Your task to perform on an android device: Open Chrome and go to settings Image 0: 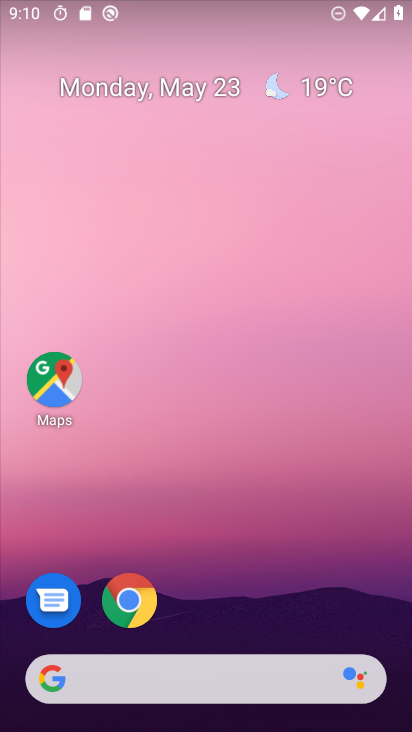
Step 0: press home button
Your task to perform on an android device: Open Chrome and go to settings Image 1: 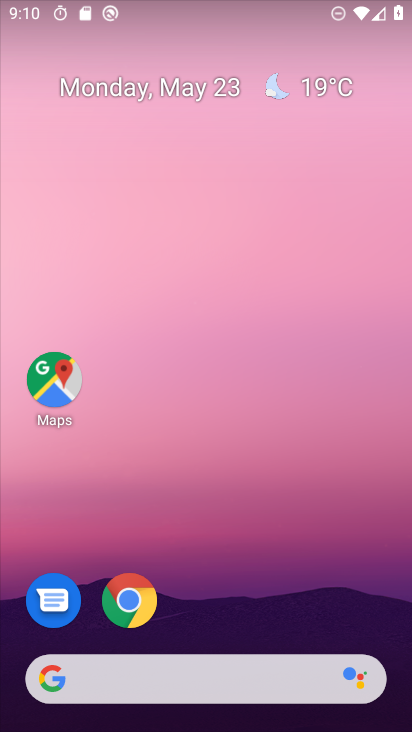
Step 1: click (115, 607)
Your task to perform on an android device: Open Chrome and go to settings Image 2: 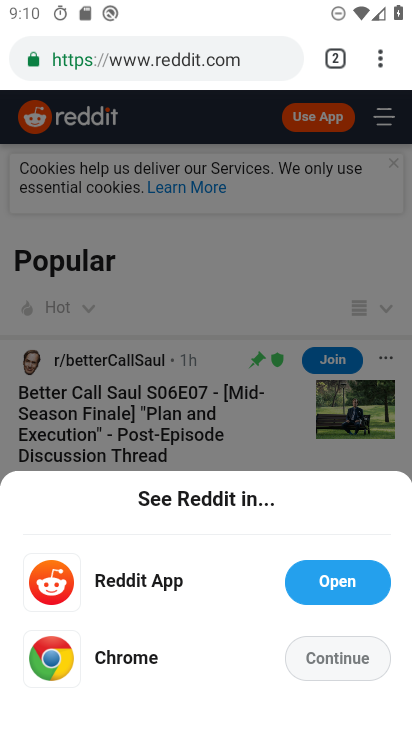
Step 2: click (375, 61)
Your task to perform on an android device: Open Chrome and go to settings Image 3: 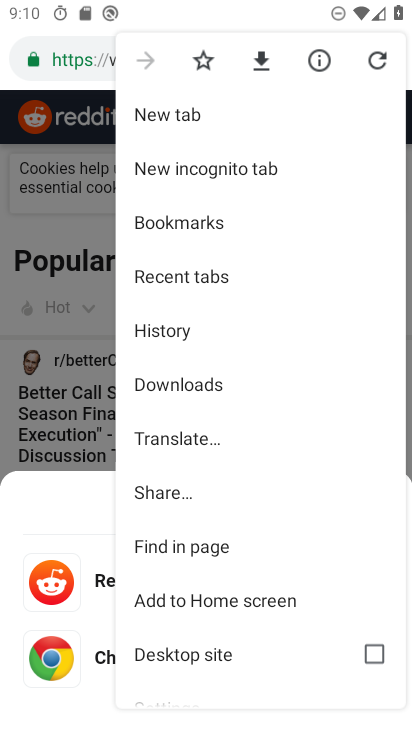
Step 3: drag from (146, 672) to (277, 231)
Your task to perform on an android device: Open Chrome and go to settings Image 4: 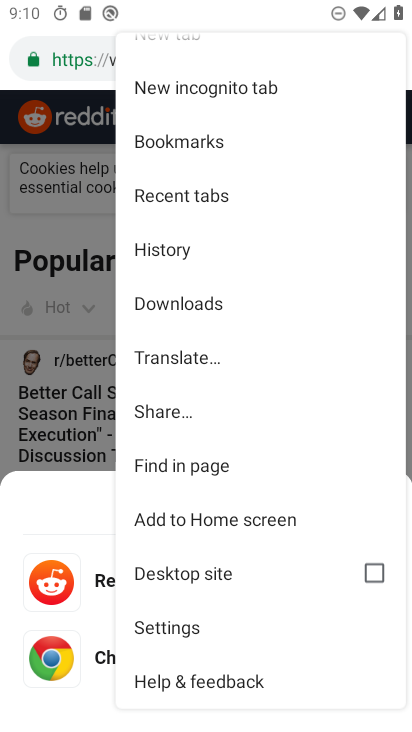
Step 4: click (180, 661)
Your task to perform on an android device: Open Chrome and go to settings Image 5: 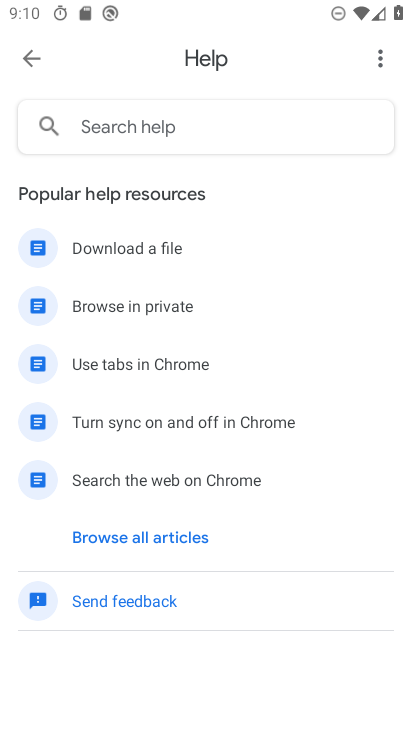
Step 5: press back button
Your task to perform on an android device: Open Chrome and go to settings Image 6: 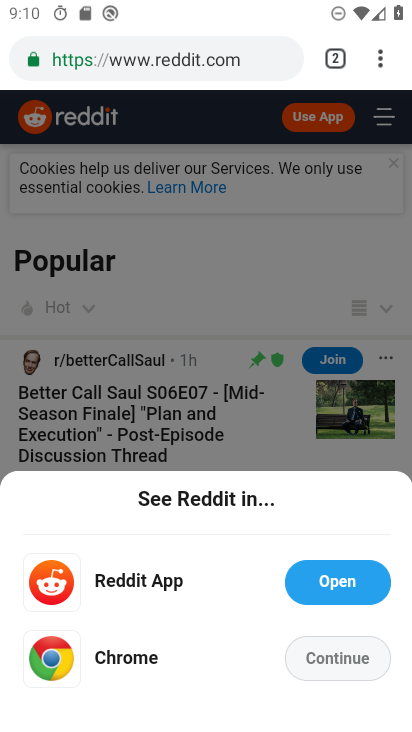
Step 6: click (378, 48)
Your task to perform on an android device: Open Chrome and go to settings Image 7: 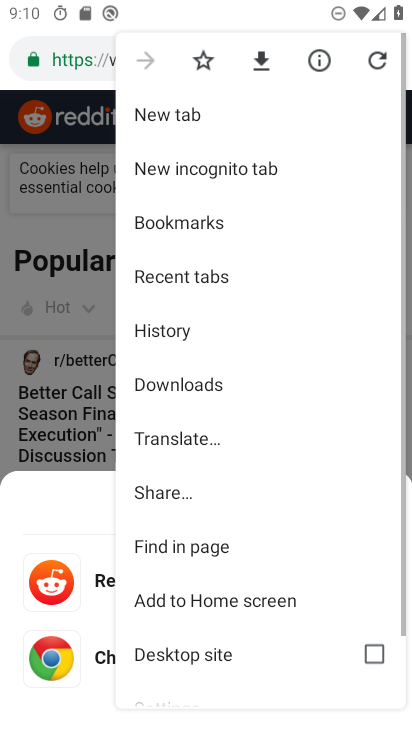
Step 7: drag from (161, 632) to (340, 150)
Your task to perform on an android device: Open Chrome and go to settings Image 8: 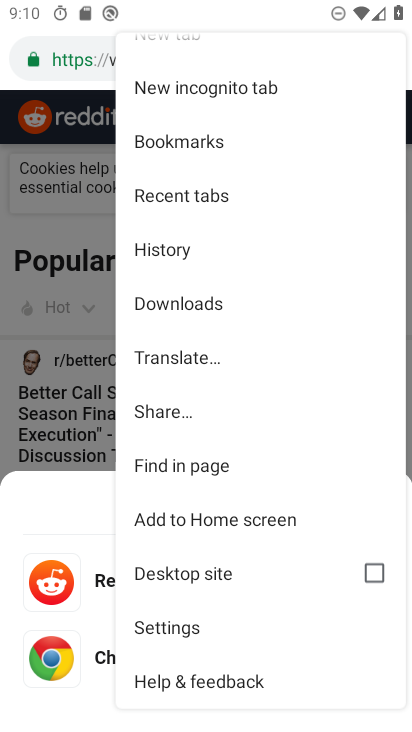
Step 8: click (151, 630)
Your task to perform on an android device: Open Chrome and go to settings Image 9: 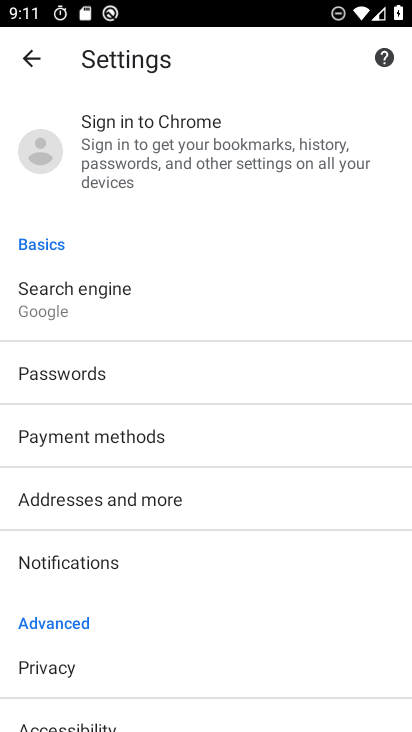
Step 9: task complete